Your task to perform on an android device: Open Google Maps and go to "Timeline" Image 0: 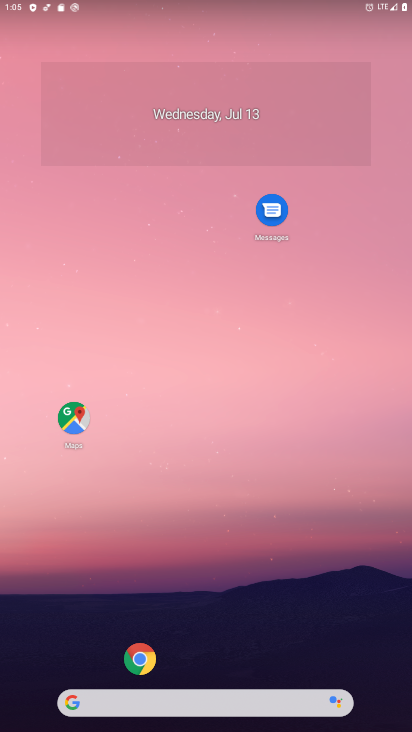
Step 0: drag from (383, 1) to (401, 274)
Your task to perform on an android device: Open Google Maps and go to "Timeline" Image 1: 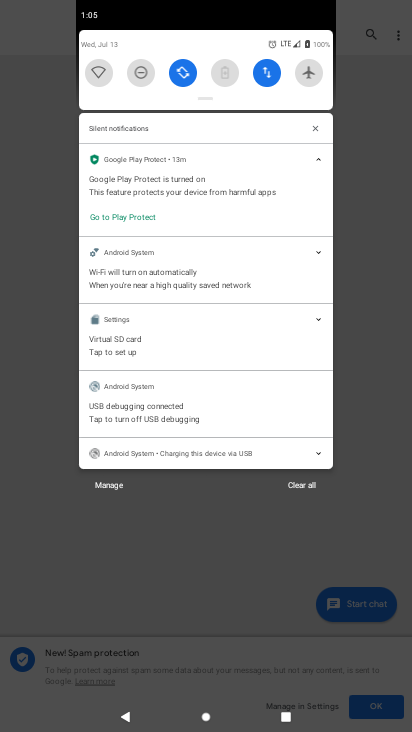
Step 1: press home button
Your task to perform on an android device: Open Google Maps and go to "Timeline" Image 2: 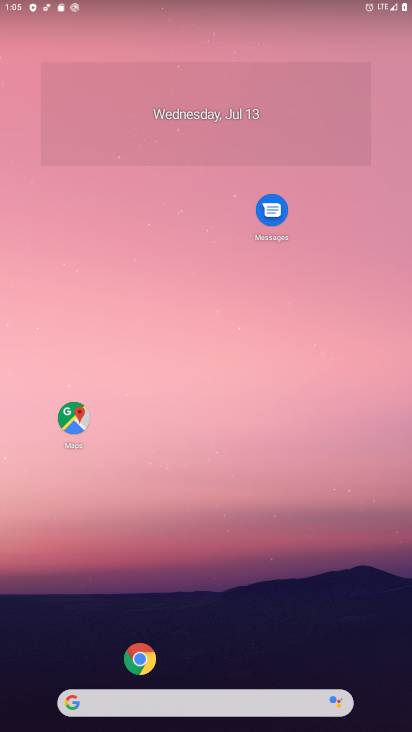
Step 2: click (68, 424)
Your task to perform on an android device: Open Google Maps and go to "Timeline" Image 3: 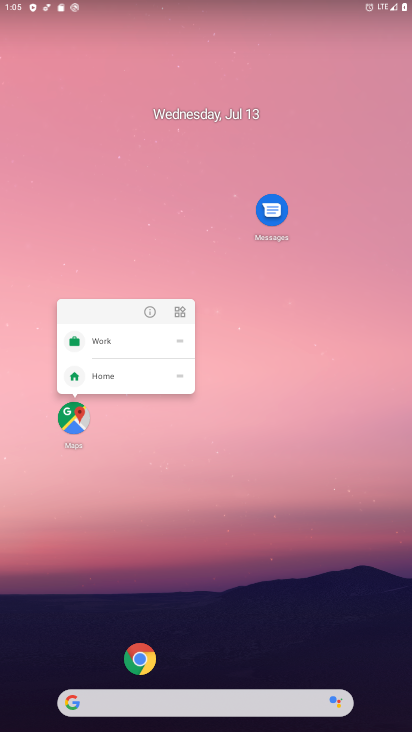
Step 3: click (89, 425)
Your task to perform on an android device: Open Google Maps and go to "Timeline" Image 4: 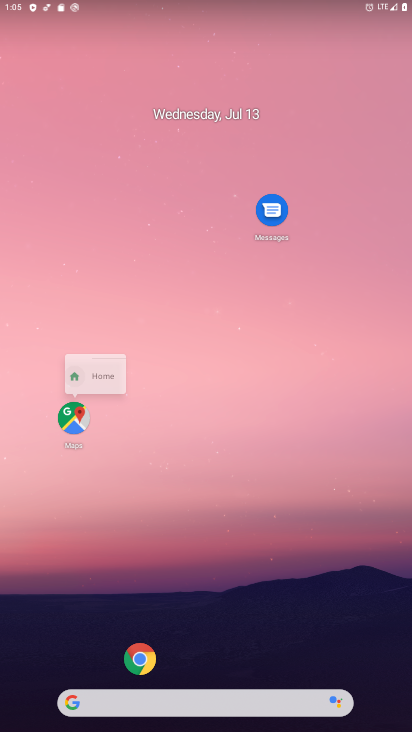
Step 4: click (89, 425)
Your task to perform on an android device: Open Google Maps and go to "Timeline" Image 5: 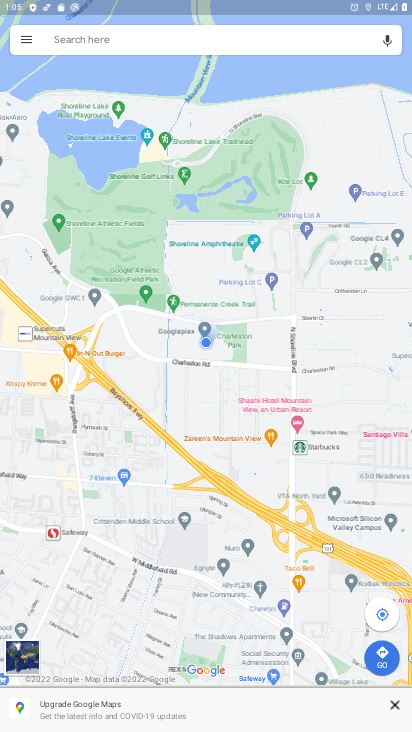
Step 5: click (27, 26)
Your task to perform on an android device: Open Google Maps and go to "Timeline" Image 6: 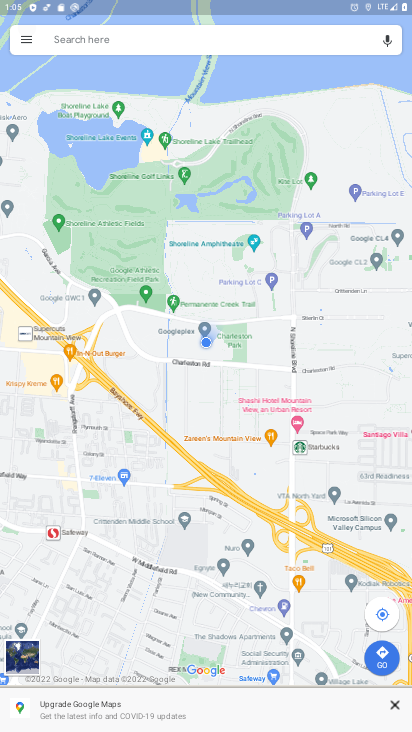
Step 6: click (22, 46)
Your task to perform on an android device: Open Google Maps and go to "Timeline" Image 7: 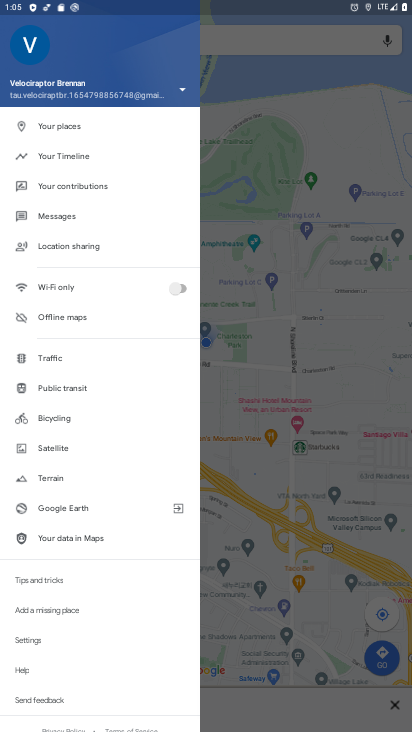
Step 7: click (63, 148)
Your task to perform on an android device: Open Google Maps and go to "Timeline" Image 8: 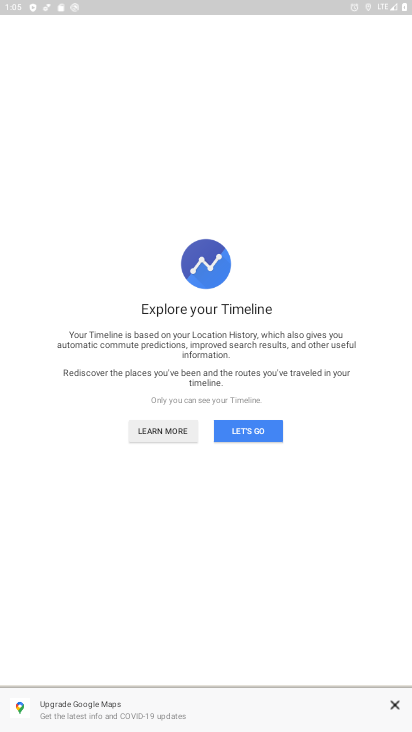
Step 8: click (269, 431)
Your task to perform on an android device: Open Google Maps and go to "Timeline" Image 9: 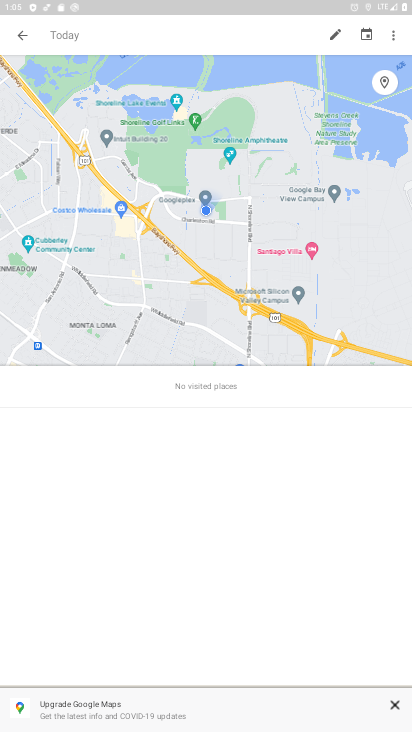
Step 9: task complete